Your task to perform on an android device: turn off improve location accuracy Image 0: 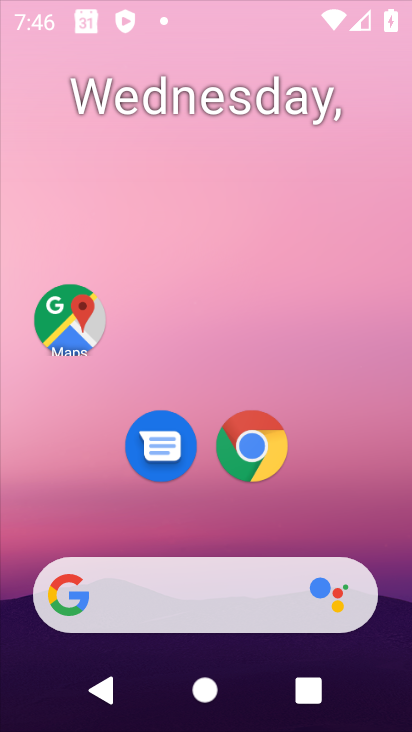
Step 0: drag from (335, 378) to (411, 16)
Your task to perform on an android device: turn off improve location accuracy Image 1: 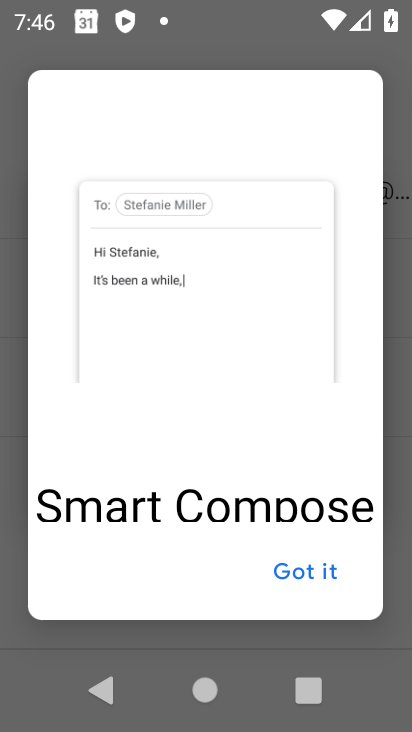
Step 1: press home button
Your task to perform on an android device: turn off improve location accuracy Image 2: 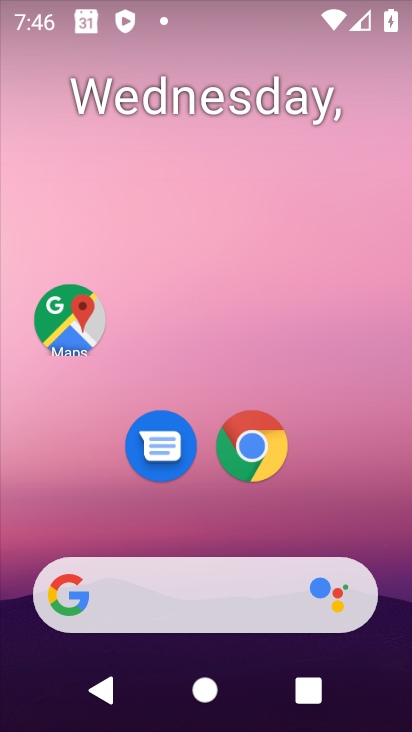
Step 2: click (340, 556)
Your task to perform on an android device: turn off improve location accuracy Image 3: 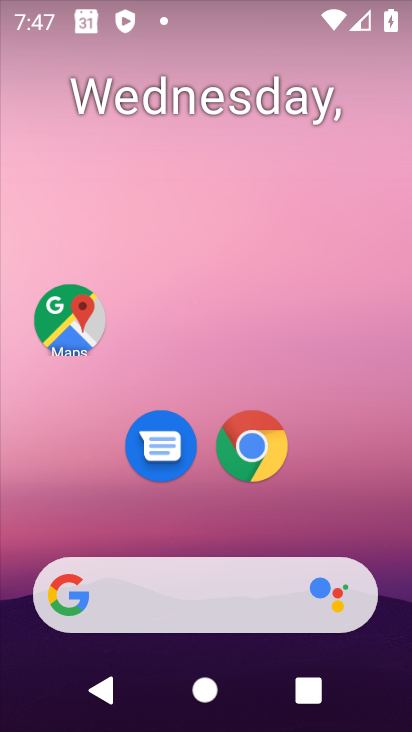
Step 3: drag from (370, 413) to (364, 27)
Your task to perform on an android device: turn off improve location accuracy Image 4: 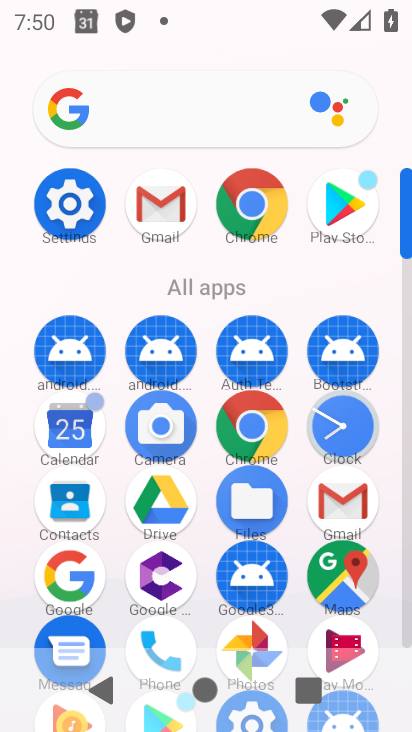
Step 4: click (72, 227)
Your task to perform on an android device: turn off improve location accuracy Image 5: 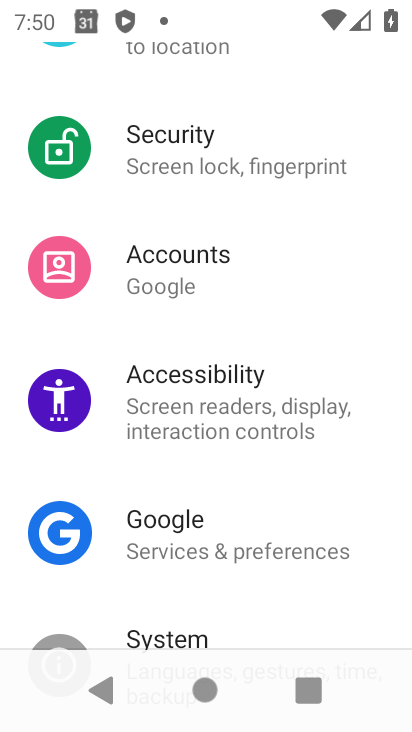
Step 5: drag from (242, 194) to (233, 614)
Your task to perform on an android device: turn off improve location accuracy Image 6: 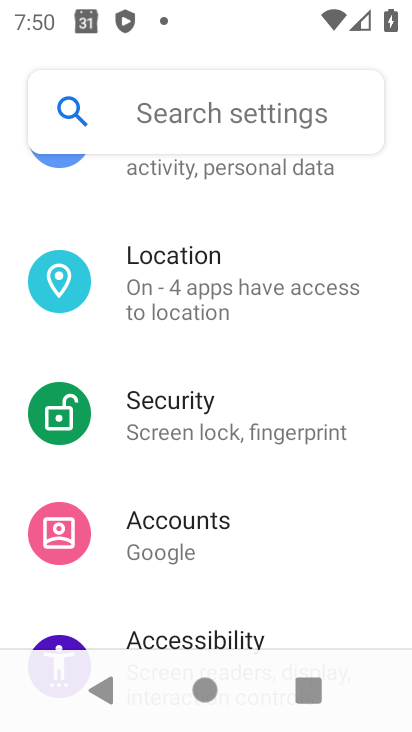
Step 6: click (159, 285)
Your task to perform on an android device: turn off improve location accuracy Image 7: 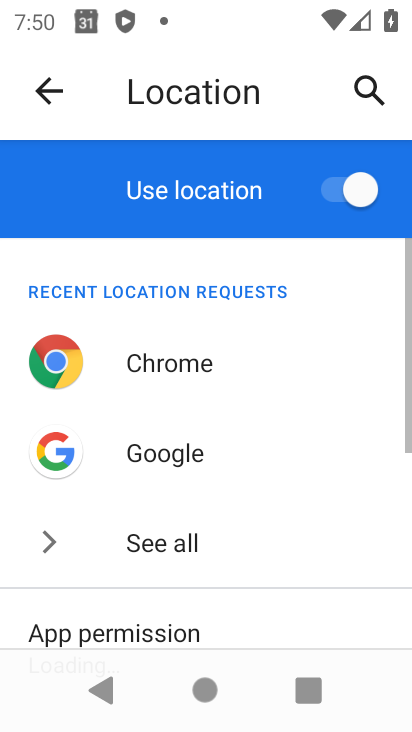
Step 7: drag from (158, 552) to (172, 88)
Your task to perform on an android device: turn off improve location accuracy Image 8: 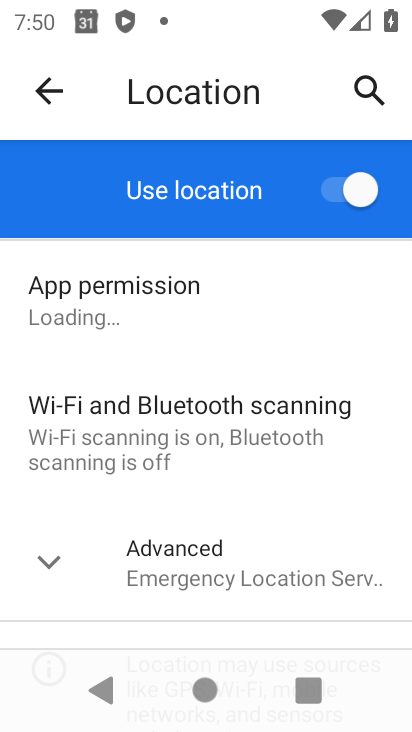
Step 8: drag from (143, 563) to (150, 503)
Your task to perform on an android device: turn off improve location accuracy Image 9: 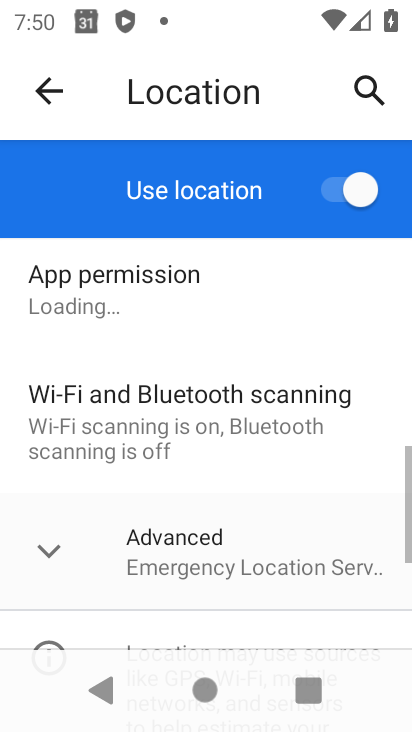
Step 9: click (127, 540)
Your task to perform on an android device: turn off improve location accuracy Image 10: 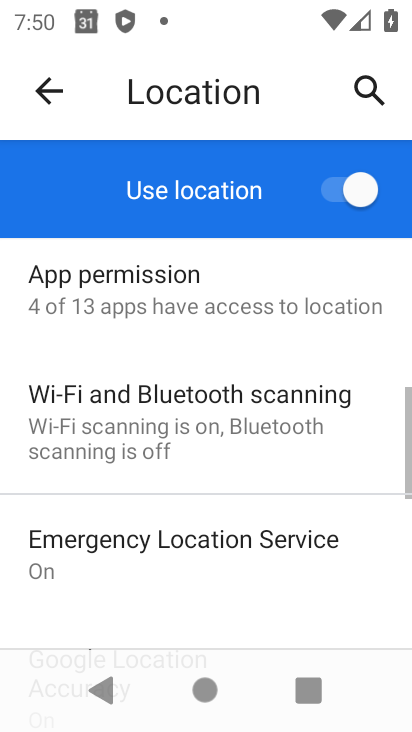
Step 10: drag from (128, 539) to (152, 223)
Your task to perform on an android device: turn off improve location accuracy Image 11: 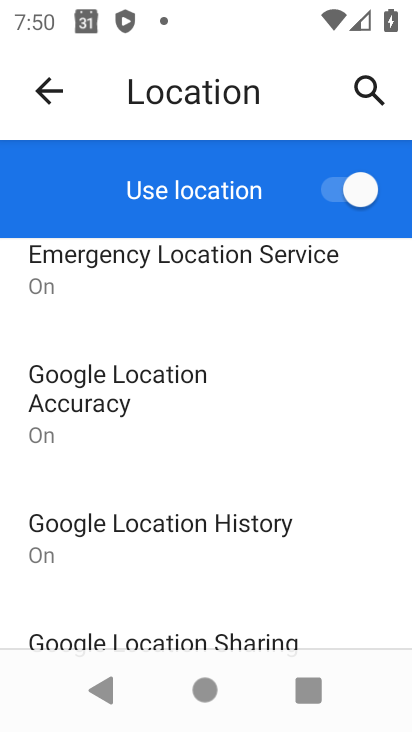
Step 11: drag from (144, 534) to (168, 227)
Your task to perform on an android device: turn off improve location accuracy Image 12: 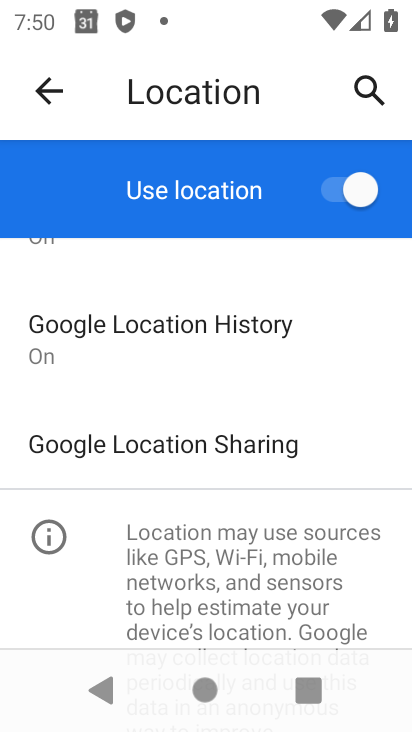
Step 12: drag from (174, 316) to (196, 556)
Your task to perform on an android device: turn off improve location accuracy Image 13: 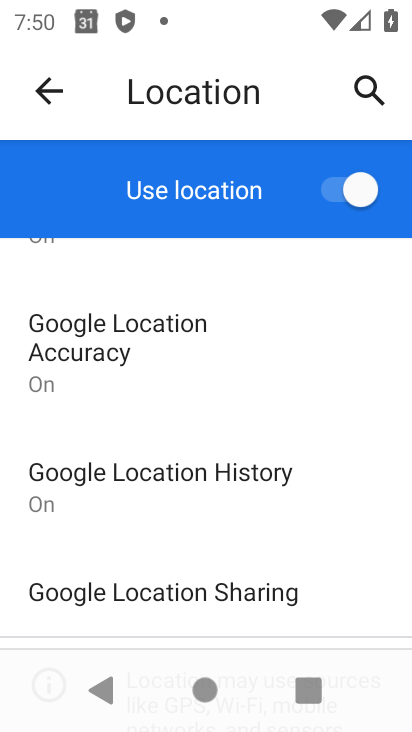
Step 13: click (92, 349)
Your task to perform on an android device: turn off improve location accuracy Image 14: 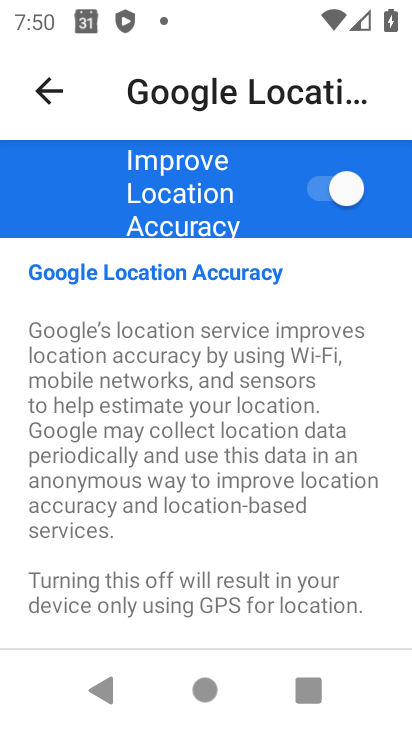
Step 14: click (308, 180)
Your task to perform on an android device: turn off improve location accuracy Image 15: 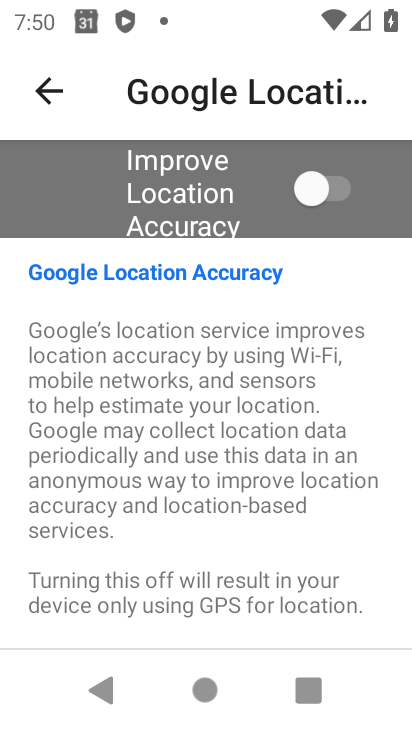
Step 15: task complete